Your task to perform on an android device: Open Amazon Image 0: 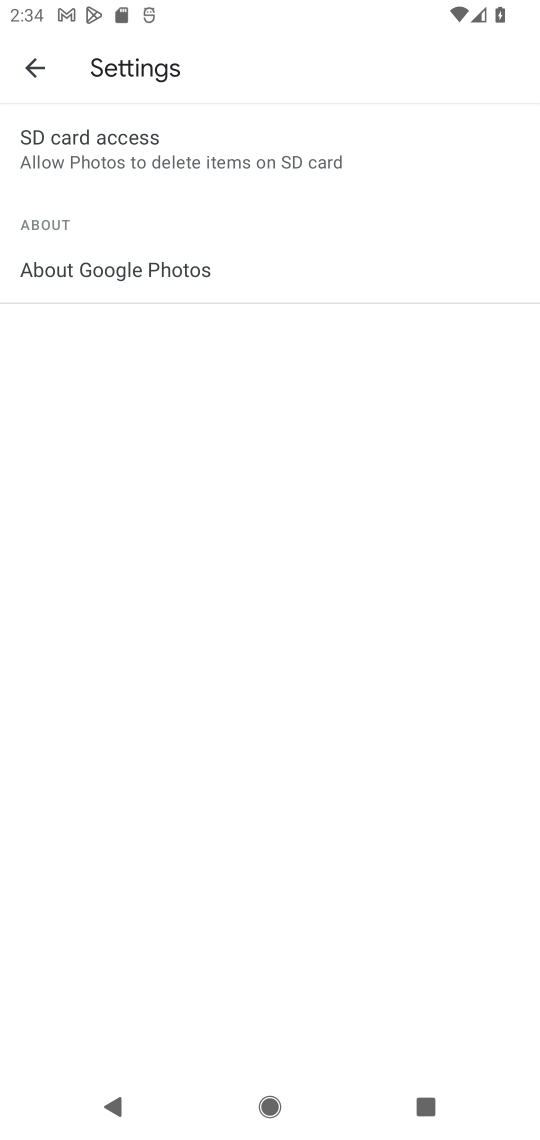
Step 0: press home button
Your task to perform on an android device: Open Amazon Image 1: 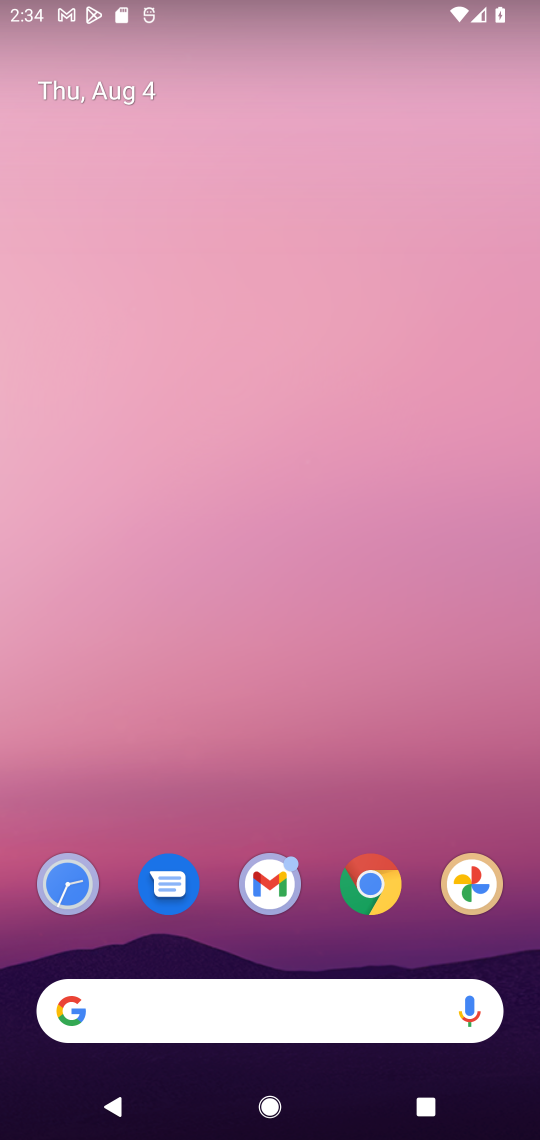
Step 1: drag from (323, 965) to (294, 444)
Your task to perform on an android device: Open Amazon Image 2: 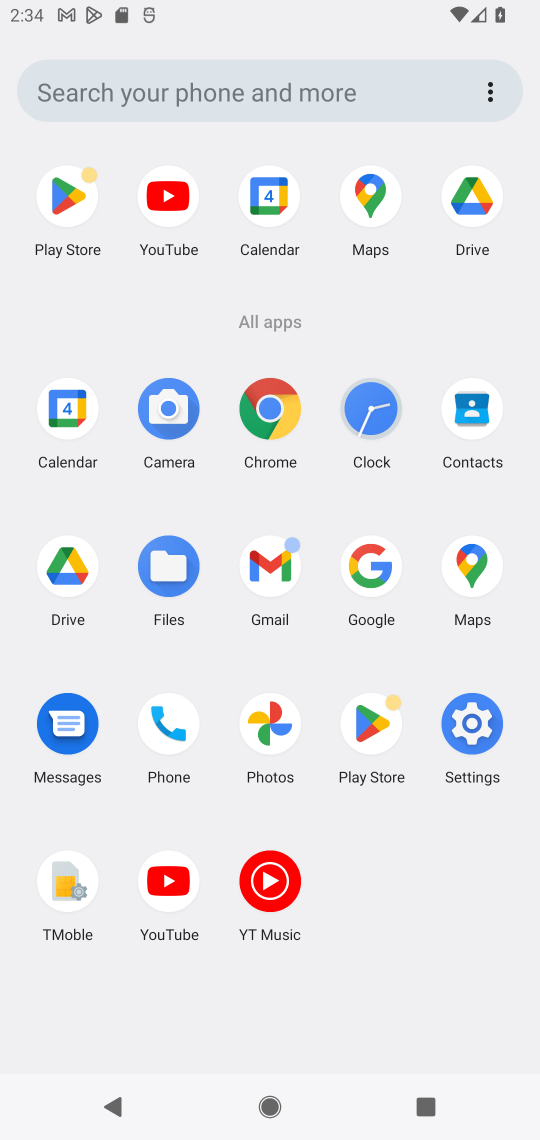
Step 2: click (259, 452)
Your task to perform on an android device: Open Amazon Image 3: 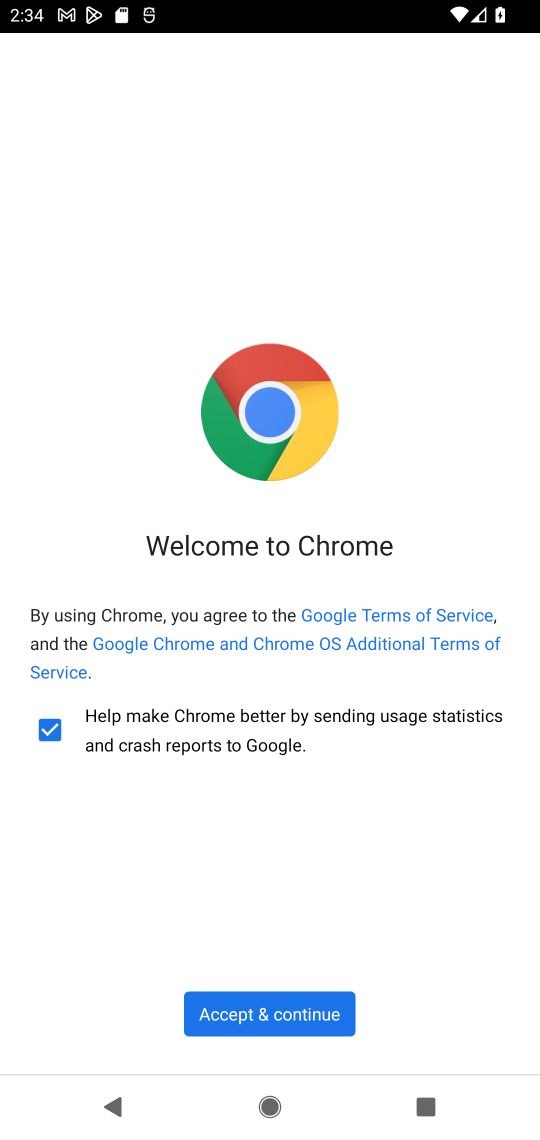
Step 3: click (314, 1011)
Your task to perform on an android device: Open Amazon Image 4: 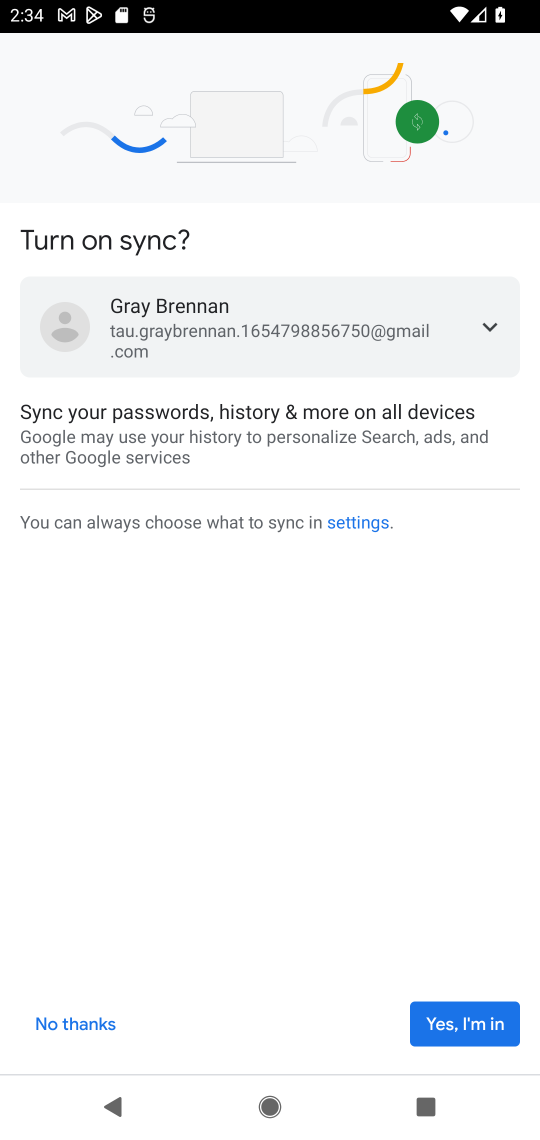
Step 4: click (476, 1030)
Your task to perform on an android device: Open Amazon Image 5: 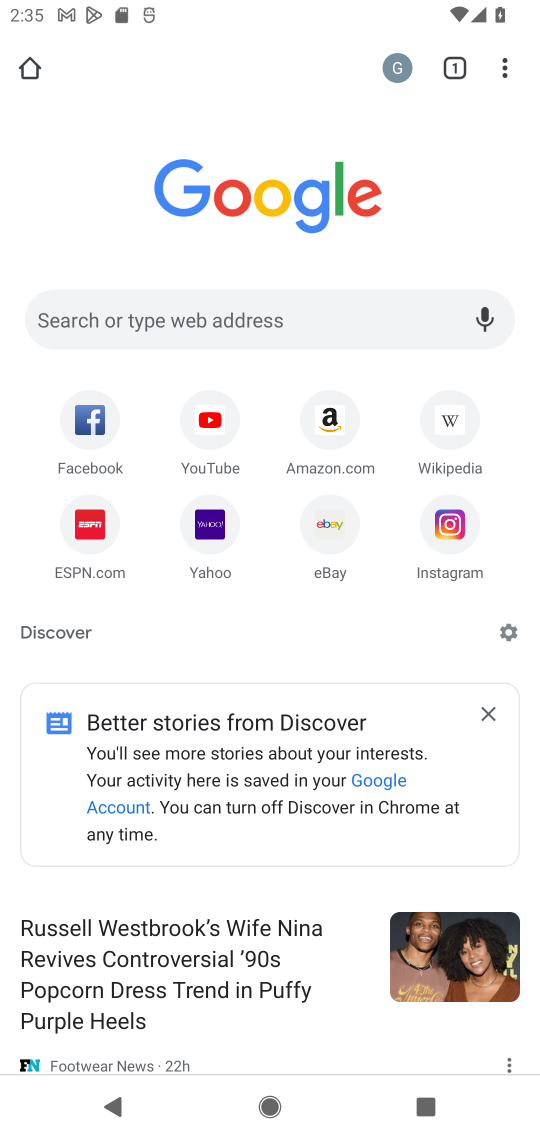
Step 5: click (310, 413)
Your task to perform on an android device: Open Amazon Image 6: 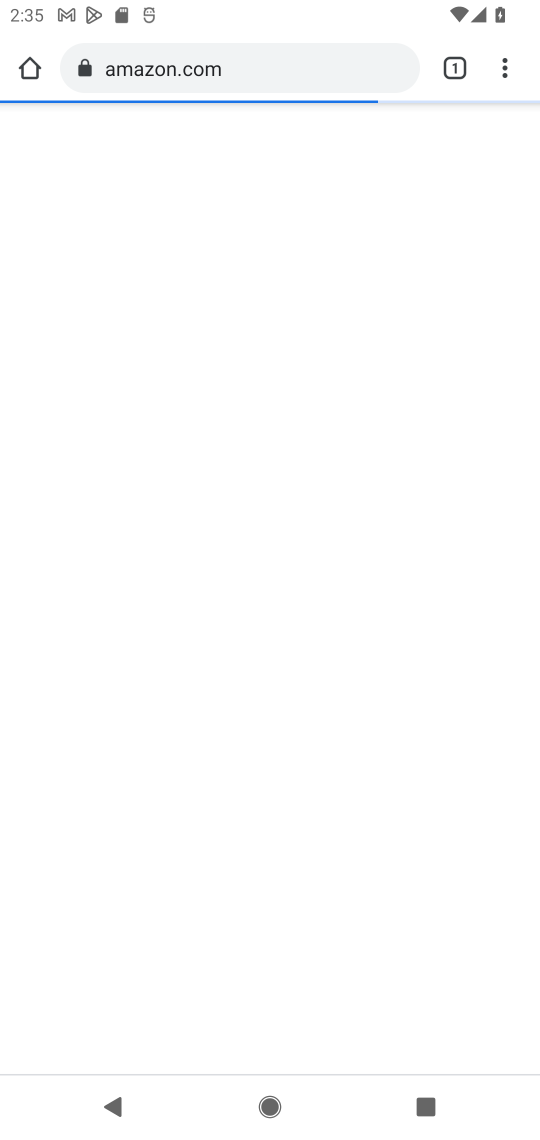
Step 6: task complete